Your task to perform on an android device: find snoozed emails in the gmail app Image 0: 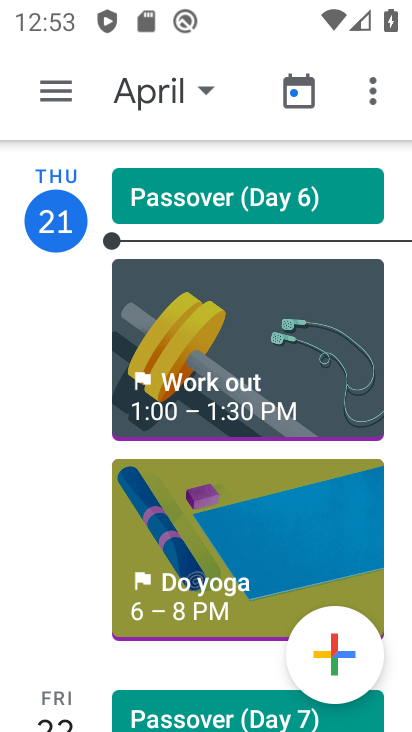
Step 0: press home button
Your task to perform on an android device: find snoozed emails in the gmail app Image 1: 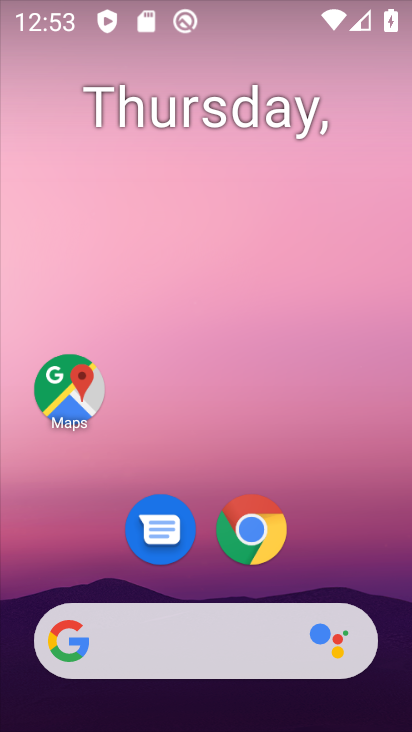
Step 1: drag from (206, 687) to (206, 112)
Your task to perform on an android device: find snoozed emails in the gmail app Image 2: 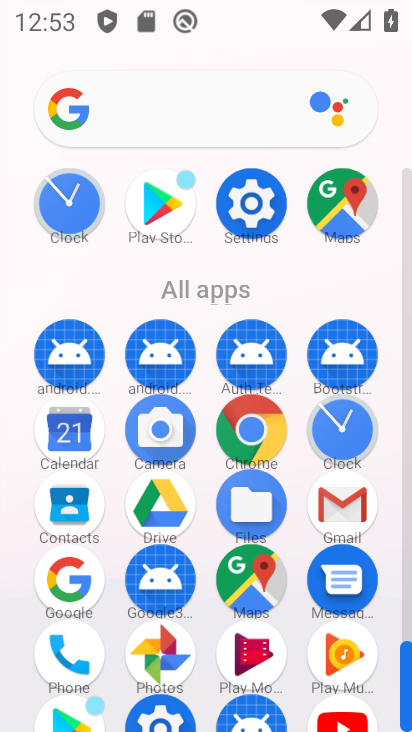
Step 2: click (345, 513)
Your task to perform on an android device: find snoozed emails in the gmail app Image 3: 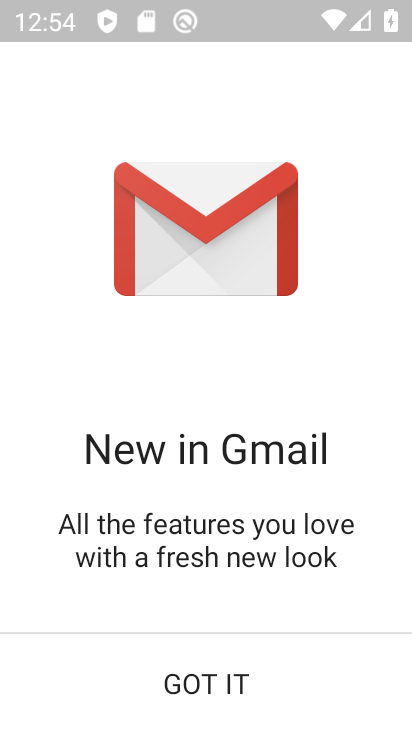
Step 3: click (190, 675)
Your task to perform on an android device: find snoozed emails in the gmail app Image 4: 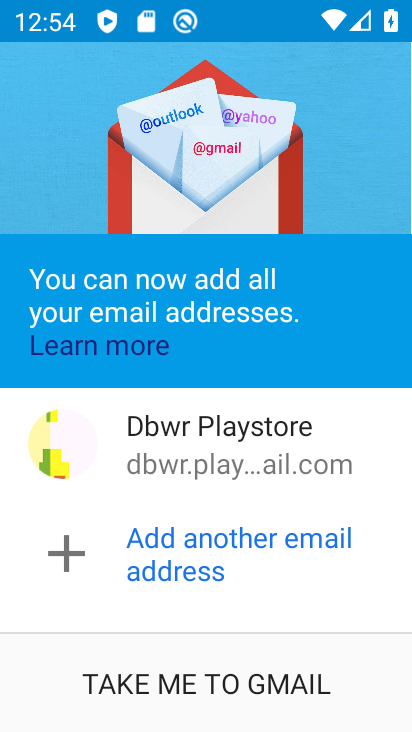
Step 4: click (190, 675)
Your task to perform on an android device: find snoozed emails in the gmail app Image 5: 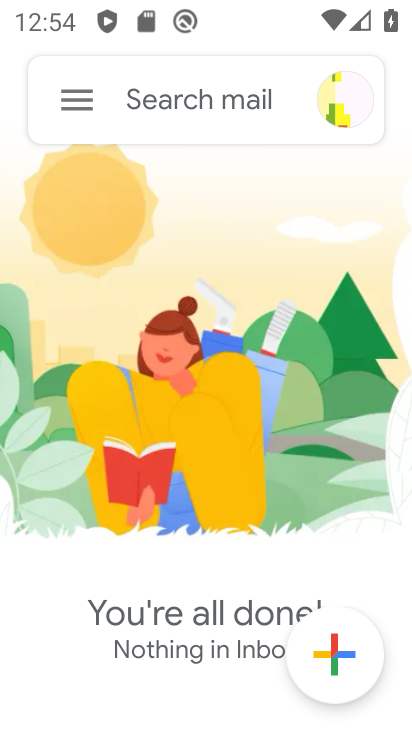
Step 5: click (81, 109)
Your task to perform on an android device: find snoozed emails in the gmail app Image 6: 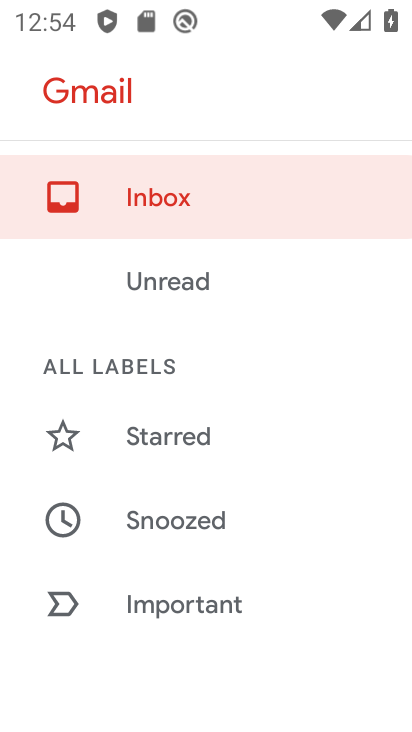
Step 6: click (172, 519)
Your task to perform on an android device: find snoozed emails in the gmail app Image 7: 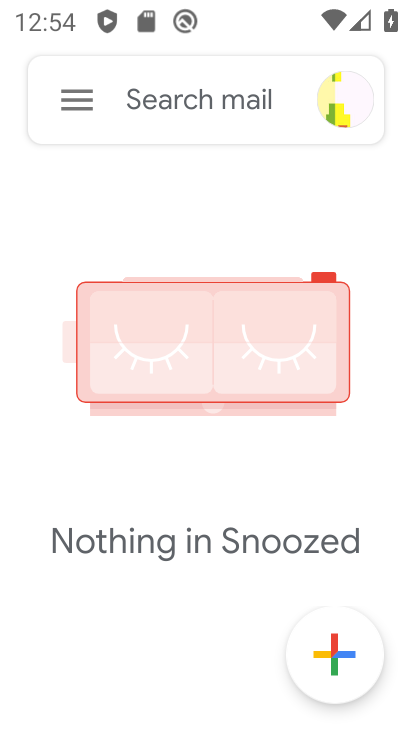
Step 7: task complete